Your task to perform on an android device: empty trash in google photos Image 0: 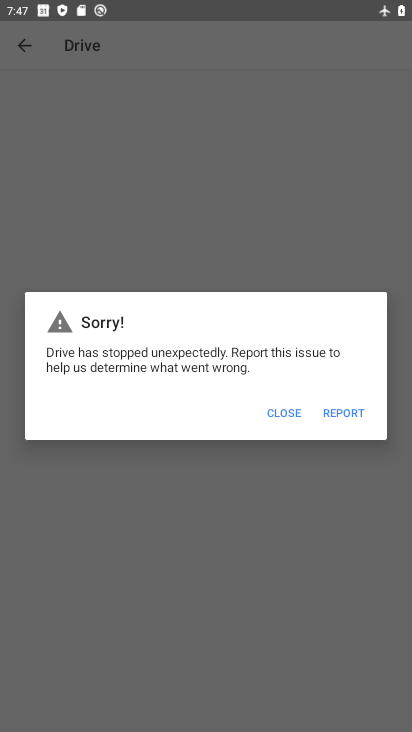
Step 0: press home button
Your task to perform on an android device: empty trash in google photos Image 1: 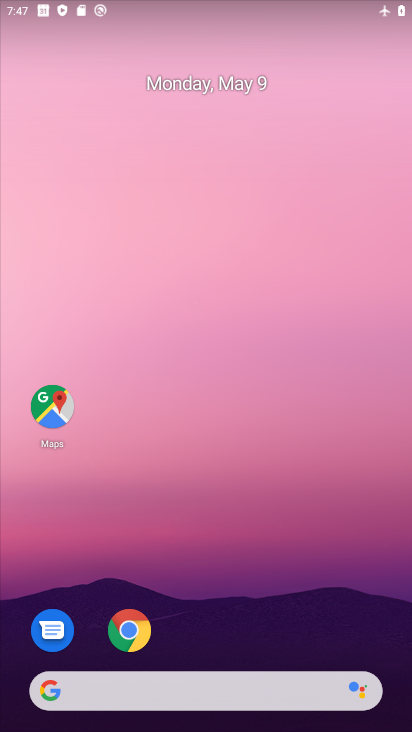
Step 1: drag from (379, 598) to (313, 199)
Your task to perform on an android device: empty trash in google photos Image 2: 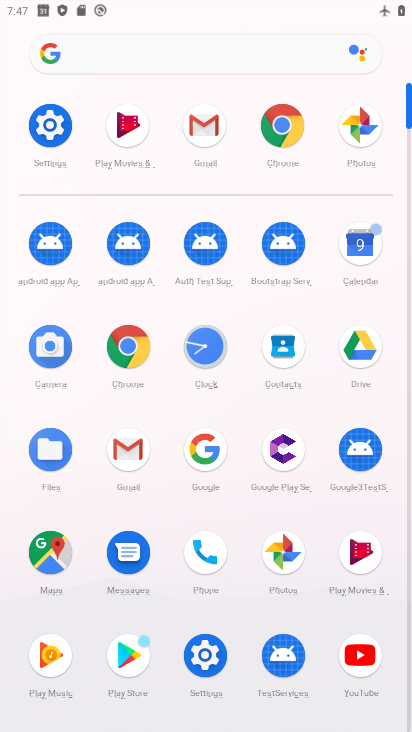
Step 2: click (276, 563)
Your task to perform on an android device: empty trash in google photos Image 3: 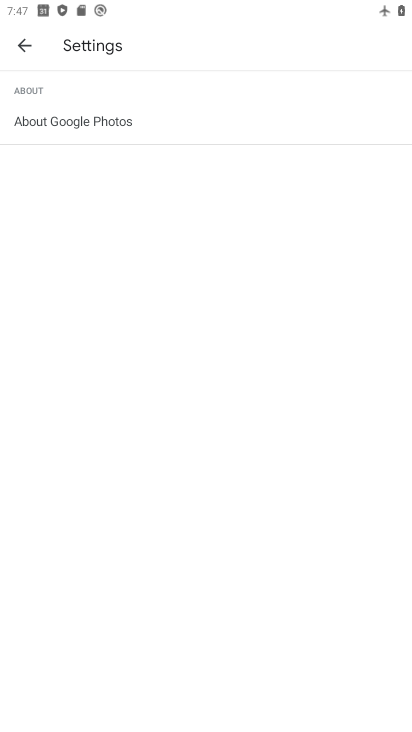
Step 3: click (22, 48)
Your task to perform on an android device: empty trash in google photos Image 4: 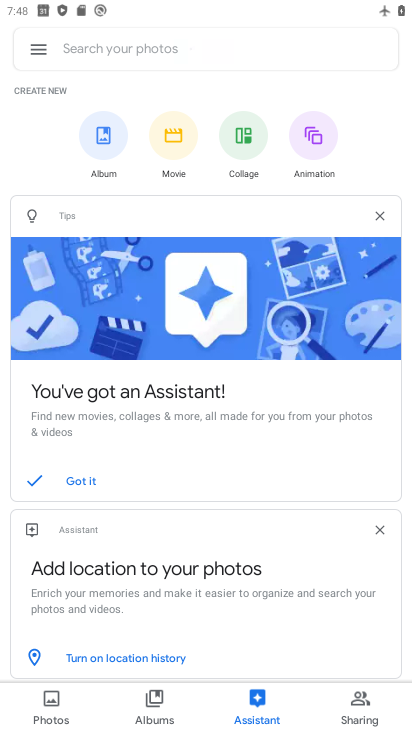
Step 4: click (39, 53)
Your task to perform on an android device: empty trash in google photos Image 5: 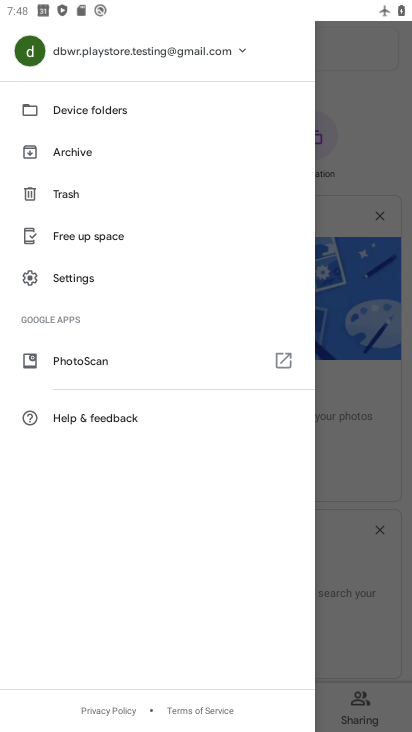
Step 5: click (77, 191)
Your task to perform on an android device: empty trash in google photos Image 6: 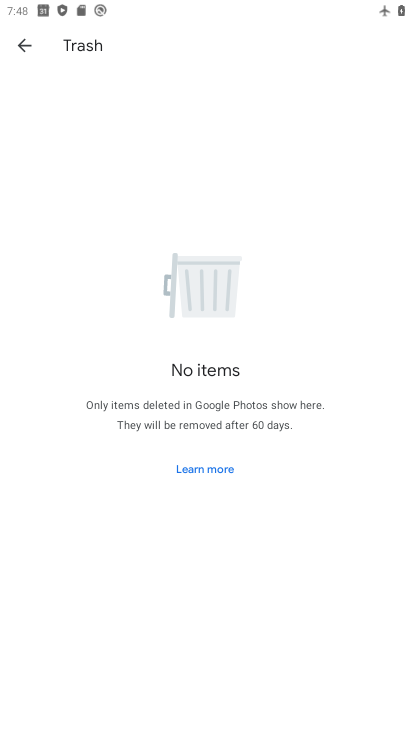
Step 6: task complete